Your task to perform on an android device: read, delete, or share a saved page in the chrome app Image 0: 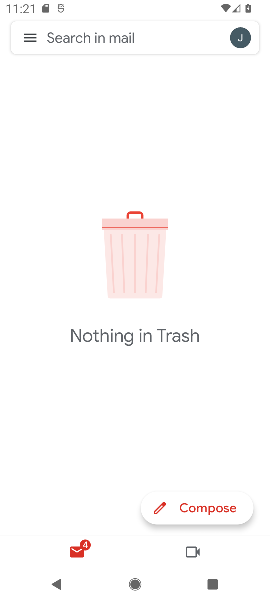
Step 0: press home button
Your task to perform on an android device: read, delete, or share a saved page in the chrome app Image 1: 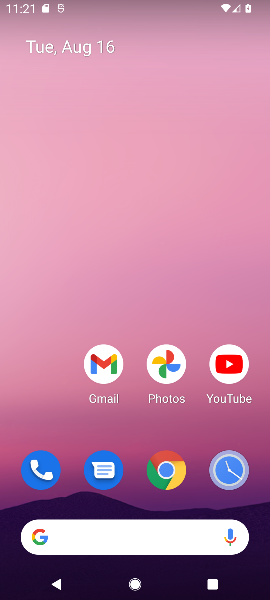
Step 1: click (168, 475)
Your task to perform on an android device: read, delete, or share a saved page in the chrome app Image 2: 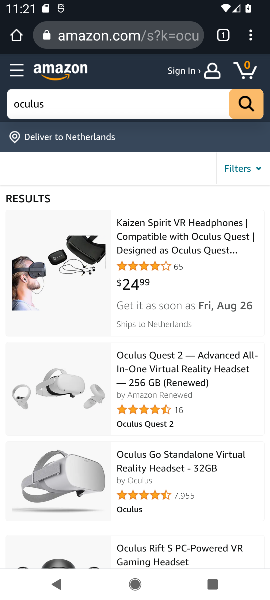
Step 2: click (252, 43)
Your task to perform on an android device: read, delete, or share a saved page in the chrome app Image 3: 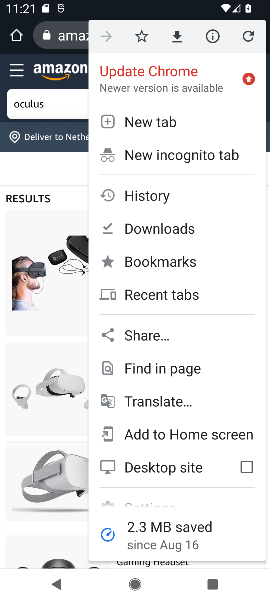
Step 3: click (172, 223)
Your task to perform on an android device: read, delete, or share a saved page in the chrome app Image 4: 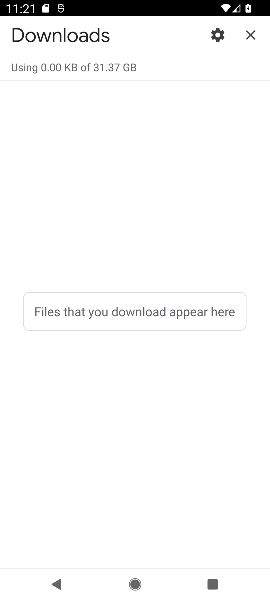
Step 4: task complete